Your task to perform on an android device: Show me the alarms in the clock app Image 0: 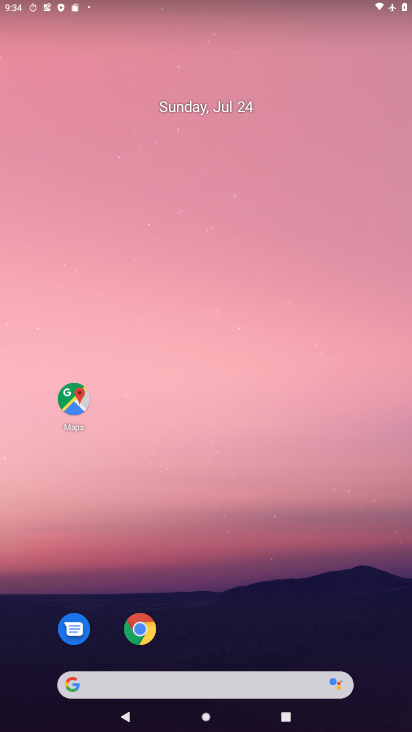
Step 0: click (236, 172)
Your task to perform on an android device: Show me the alarms in the clock app Image 1: 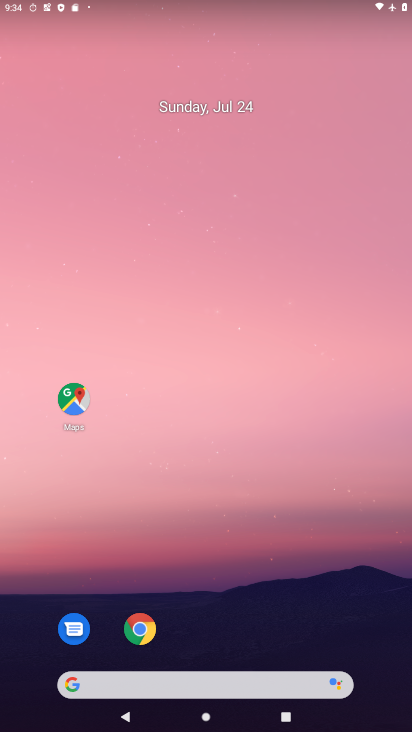
Step 1: drag from (192, 697) to (179, 153)
Your task to perform on an android device: Show me the alarms in the clock app Image 2: 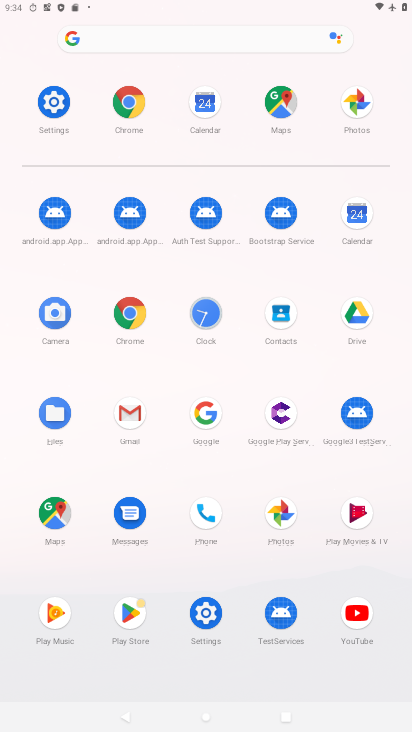
Step 2: click (213, 318)
Your task to perform on an android device: Show me the alarms in the clock app Image 3: 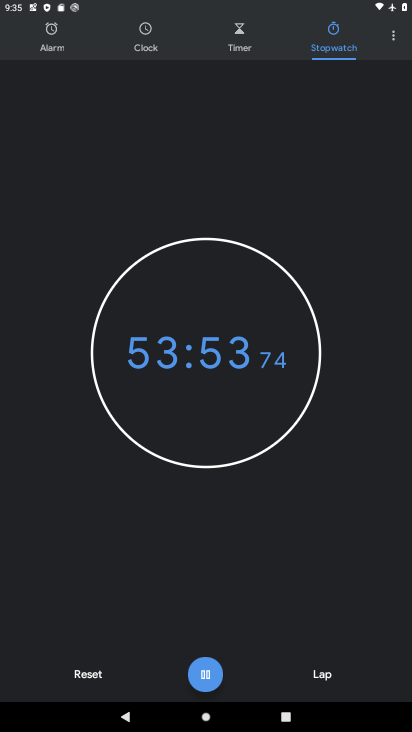
Step 3: click (70, 49)
Your task to perform on an android device: Show me the alarms in the clock app Image 4: 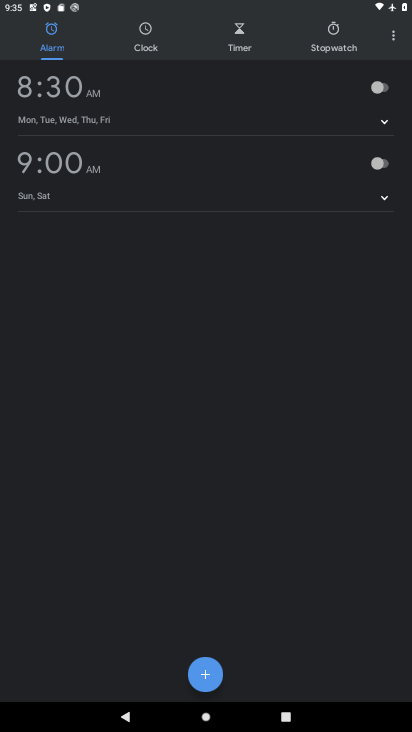
Step 4: task complete